Your task to perform on an android device: visit the assistant section in the google photos Image 0: 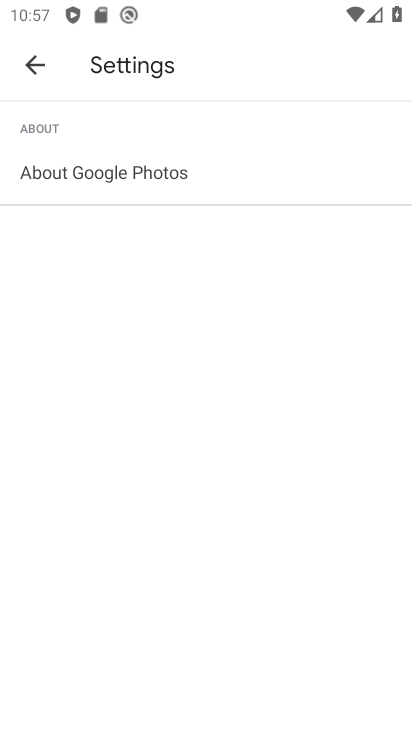
Step 0: press home button
Your task to perform on an android device: visit the assistant section in the google photos Image 1: 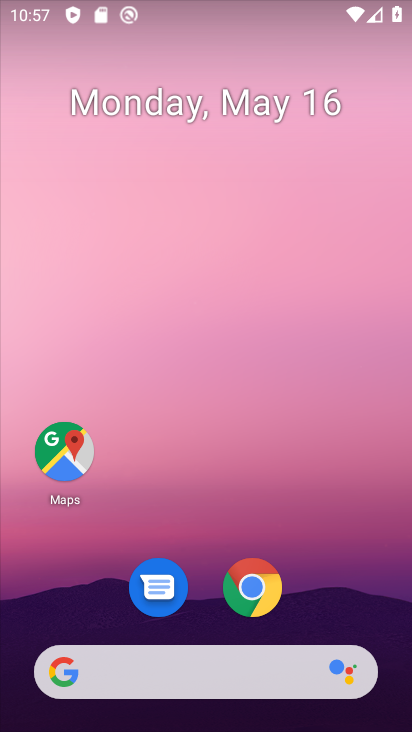
Step 1: drag from (391, 630) to (280, 58)
Your task to perform on an android device: visit the assistant section in the google photos Image 2: 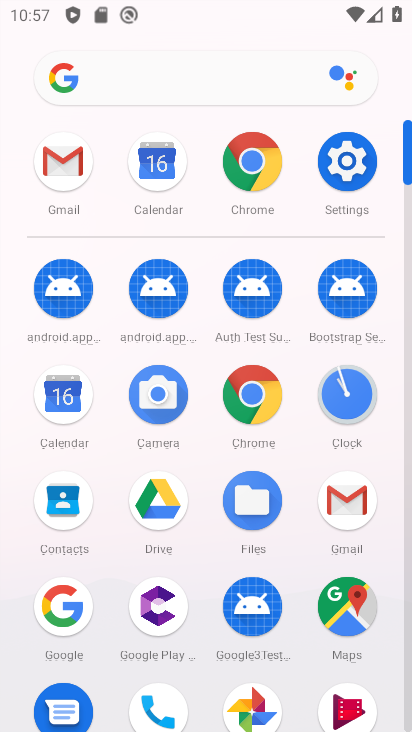
Step 2: click (244, 701)
Your task to perform on an android device: visit the assistant section in the google photos Image 3: 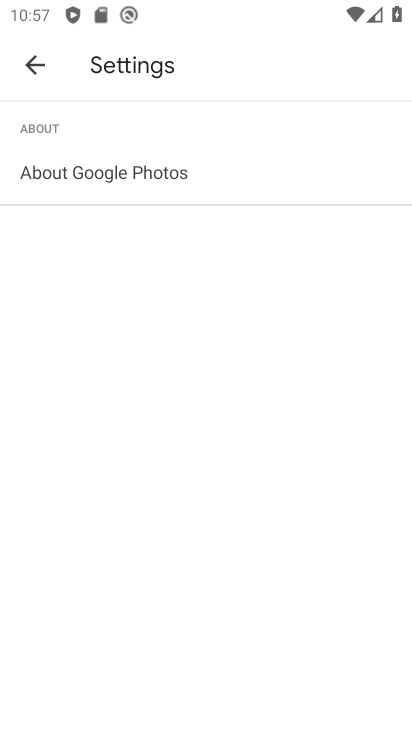
Step 3: press back button
Your task to perform on an android device: visit the assistant section in the google photos Image 4: 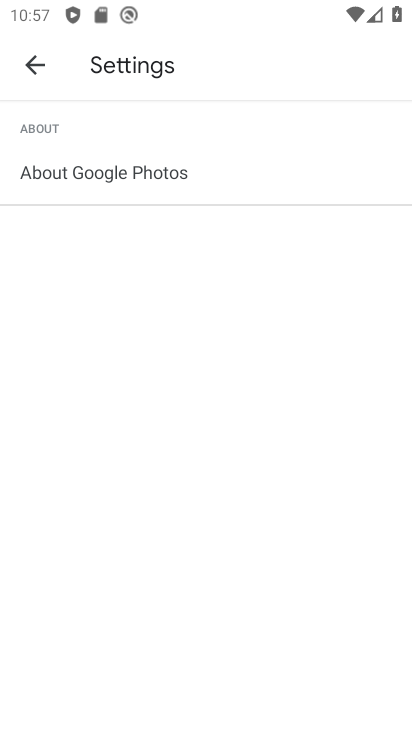
Step 4: press back button
Your task to perform on an android device: visit the assistant section in the google photos Image 5: 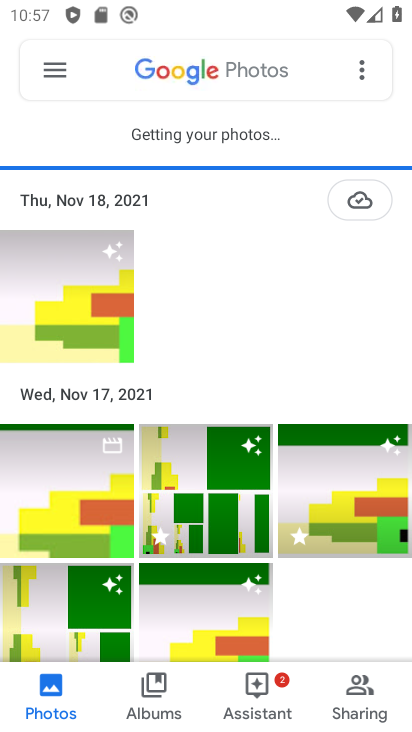
Step 5: click (256, 702)
Your task to perform on an android device: visit the assistant section in the google photos Image 6: 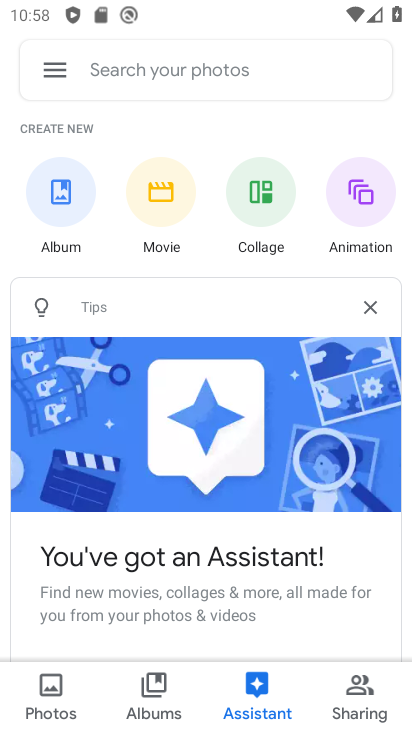
Step 6: task complete